Your task to perform on an android device: turn pop-ups off in chrome Image 0: 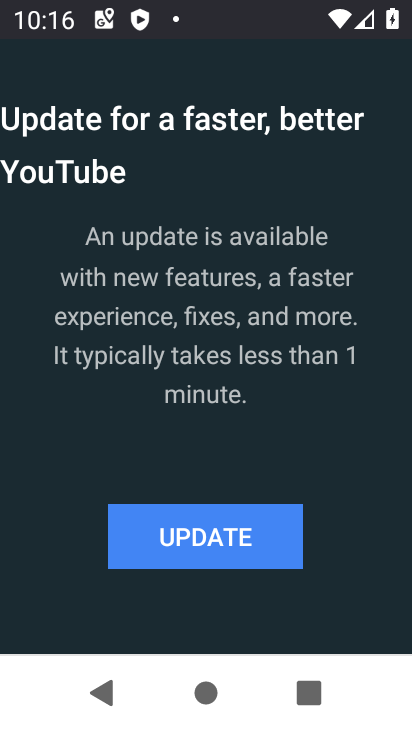
Step 0: press home button
Your task to perform on an android device: turn pop-ups off in chrome Image 1: 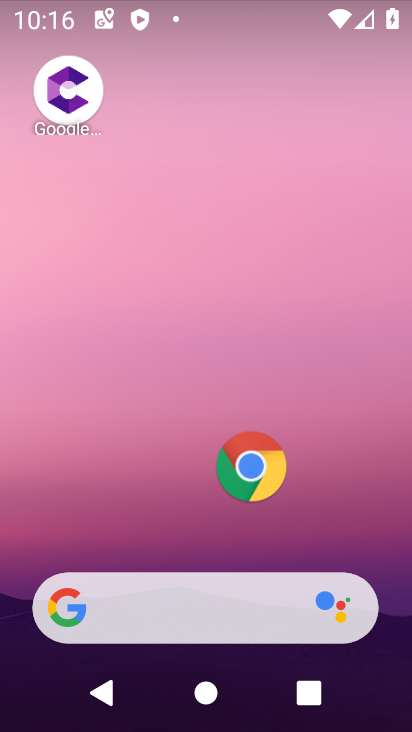
Step 1: click (248, 475)
Your task to perform on an android device: turn pop-ups off in chrome Image 2: 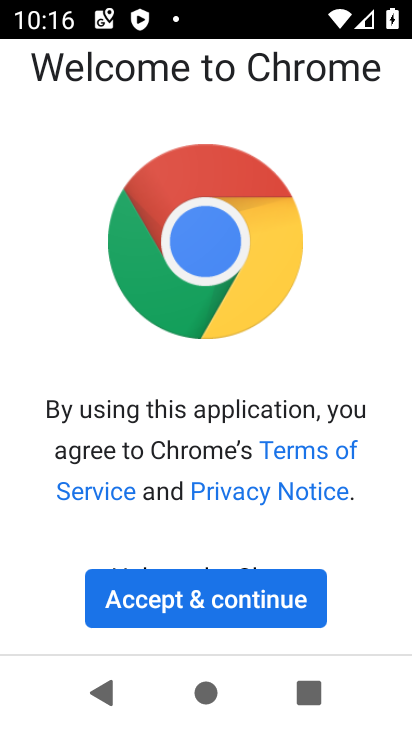
Step 2: click (194, 607)
Your task to perform on an android device: turn pop-ups off in chrome Image 3: 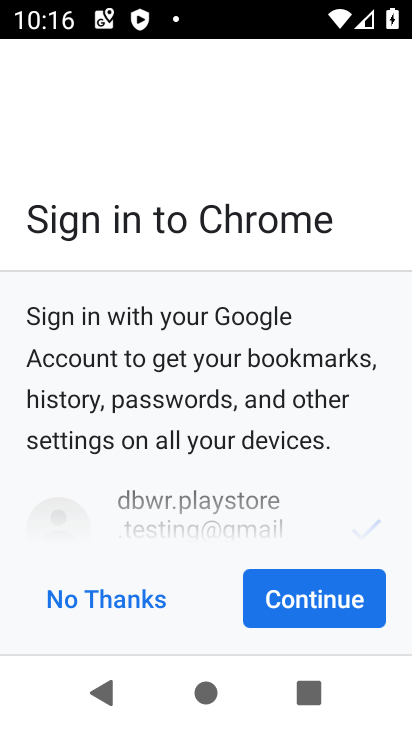
Step 3: click (256, 602)
Your task to perform on an android device: turn pop-ups off in chrome Image 4: 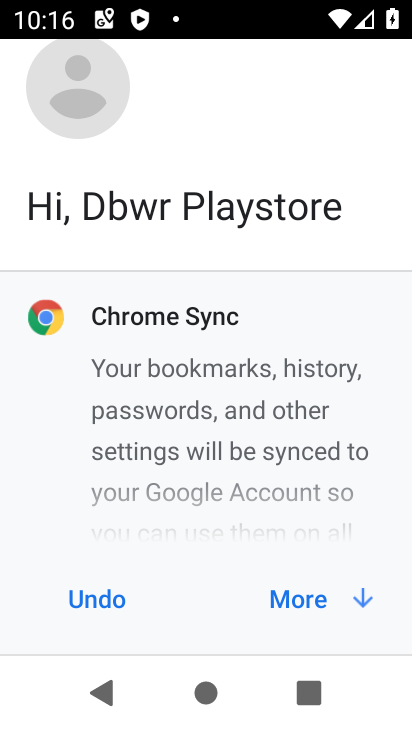
Step 4: click (287, 598)
Your task to perform on an android device: turn pop-ups off in chrome Image 5: 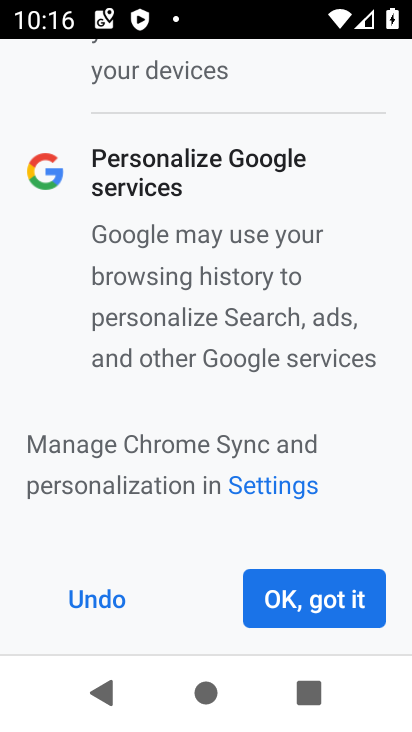
Step 5: click (287, 598)
Your task to perform on an android device: turn pop-ups off in chrome Image 6: 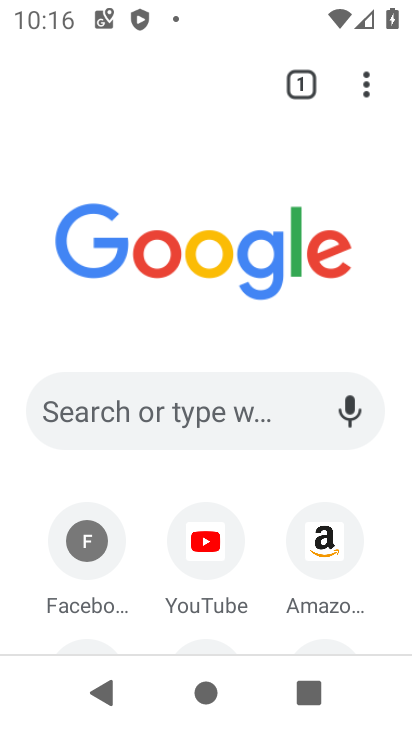
Step 6: click (362, 86)
Your task to perform on an android device: turn pop-ups off in chrome Image 7: 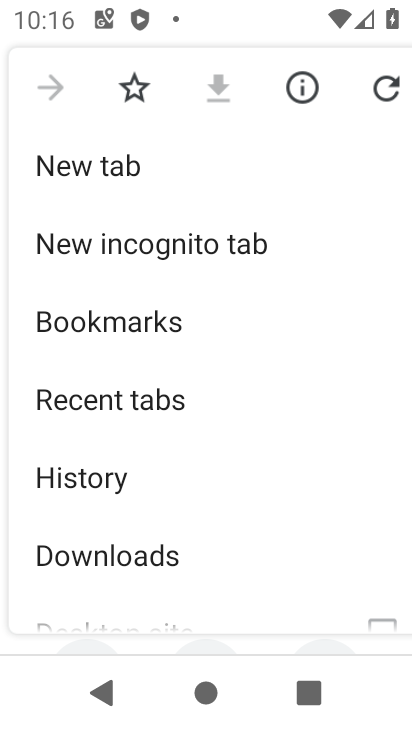
Step 7: drag from (147, 537) to (264, 112)
Your task to perform on an android device: turn pop-ups off in chrome Image 8: 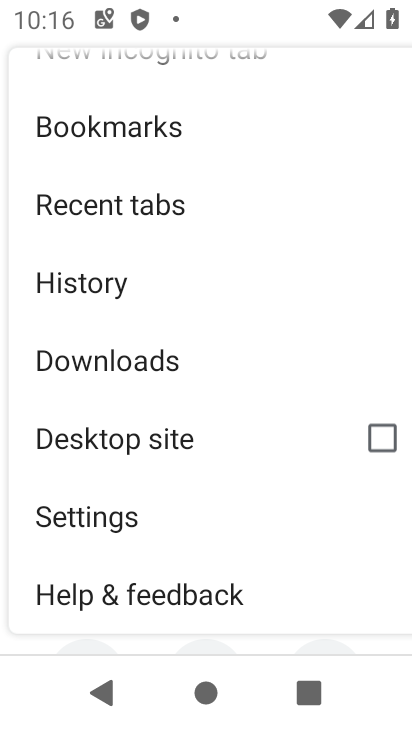
Step 8: click (124, 510)
Your task to perform on an android device: turn pop-ups off in chrome Image 9: 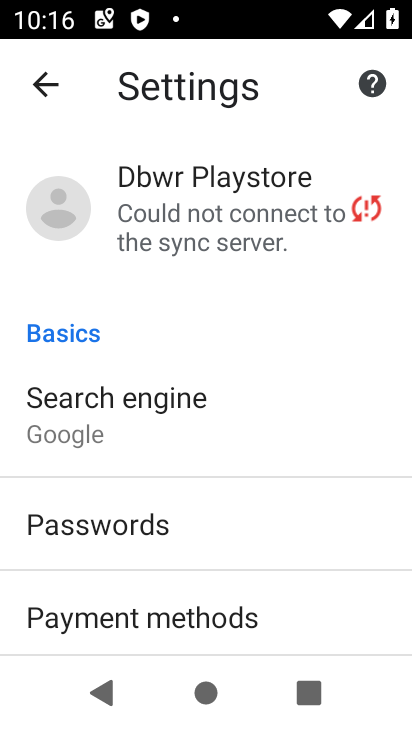
Step 9: drag from (162, 595) to (240, 252)
Your task to perform on an android device: turn pop-ups off in chrome Image 10: 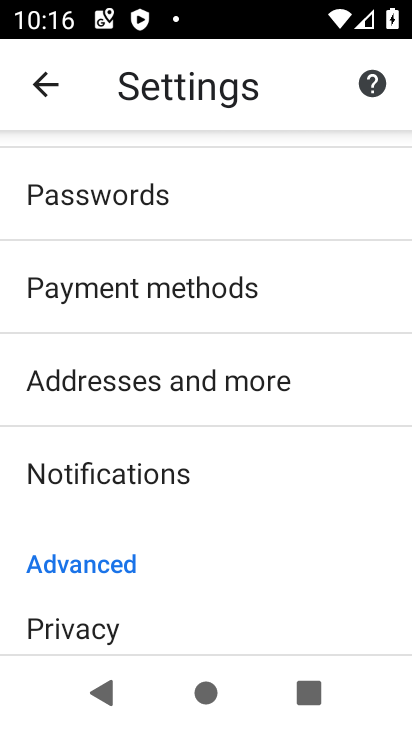
Step 10: drag from (185, 558) to (216, 255)
Your task to perform on an android device: turn pop-ups off in chrome Image 11: 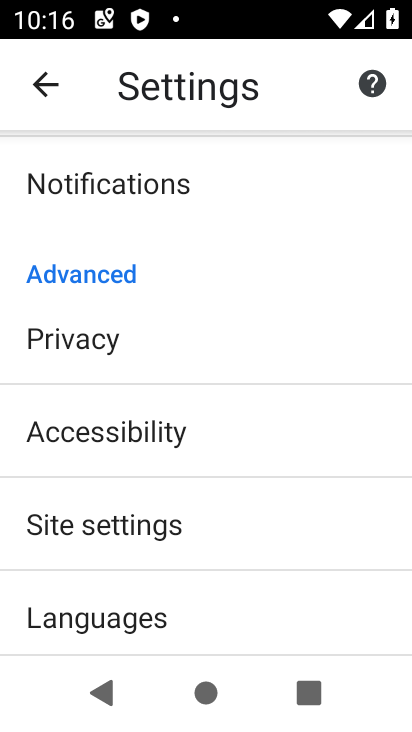
Step 11: click (170, 519)
Your task to perform on an android device: turn pop-ups off in chrome Image 12: 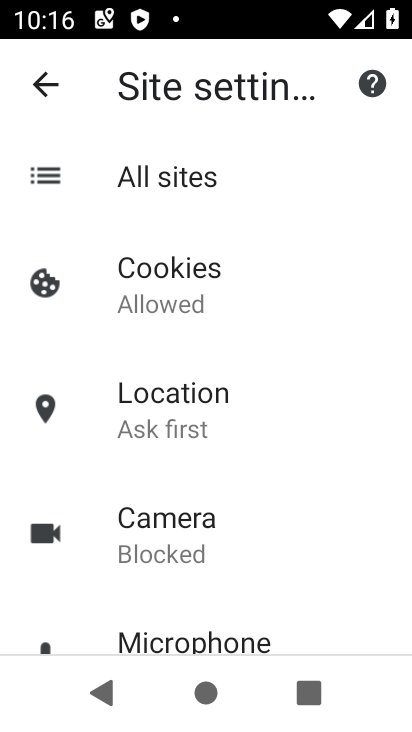
Step 12: drag from (206, 446) to (286, 237)
Your task to perform on an android device: turn pop-ups off in chrome Image 13: 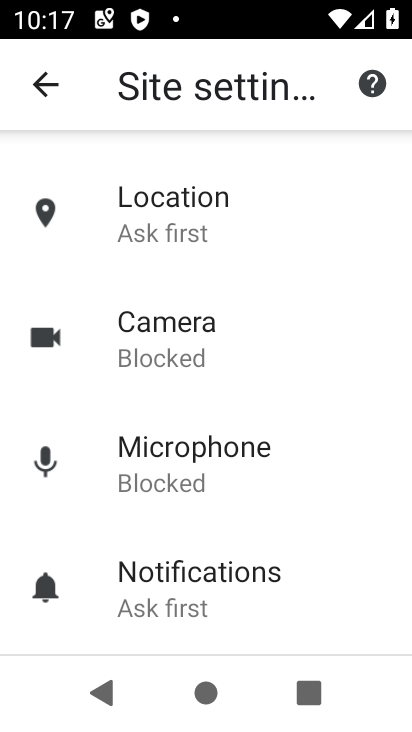
Step 13: drag from (208, 528) to (235, 283)
Your task to perform on an android device: turn pop-ups off in chrome Image 14: 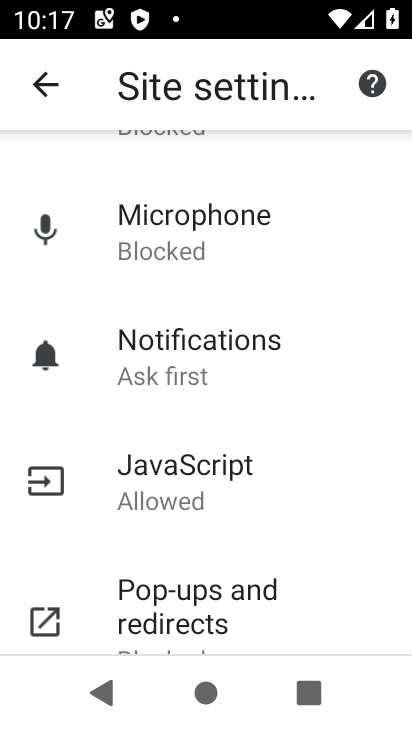
Step 14: click (180, 596)
Your task to perform on an android device: turn pop-ups off in chrome Image 15: 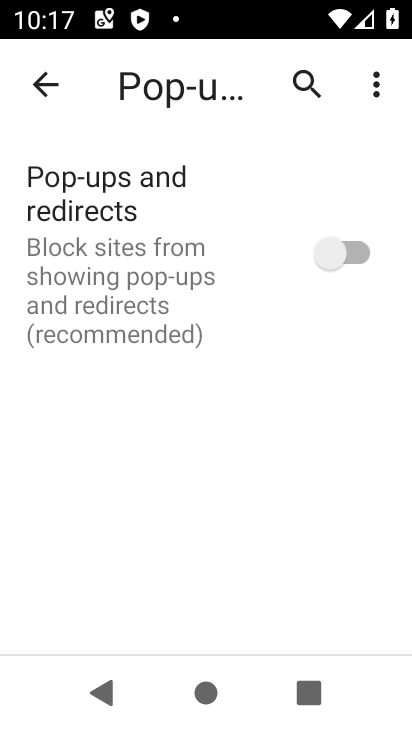
Step 15: task complete